Your task to perform on an android device: visit the assistant section in the google photos Image 0: 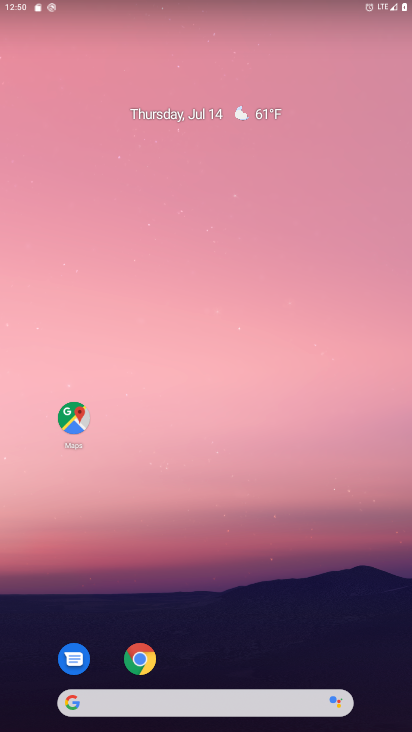
Step 0: press home button
Your task to perform on an android device: visit the assistant section in the google photos Image 1: 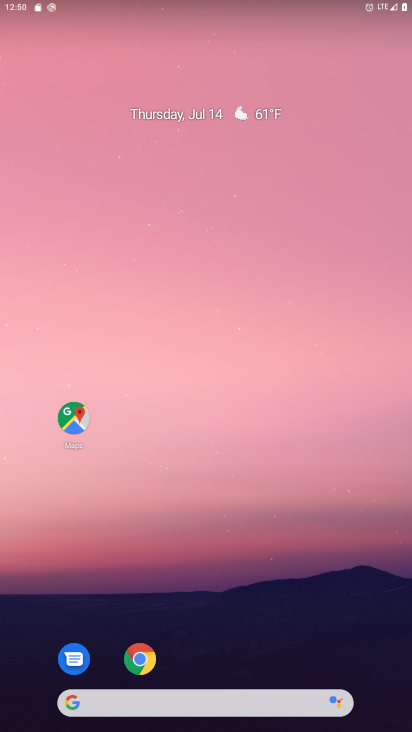
Step 1: drag from (207, 442) to (237, 119)
Your task to perform on an android device: visit the assistant section in the google photos Image 2: 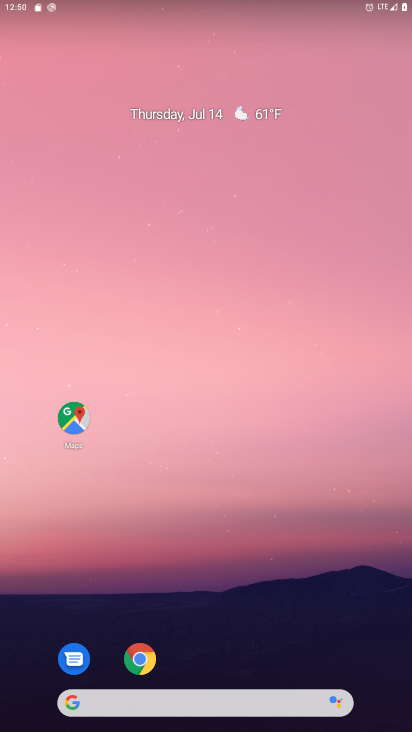
Step 2: drag from (206, 676) to (212, 99)
Your task to perform on an android device: visit the assistant section in the google photos Image 3: 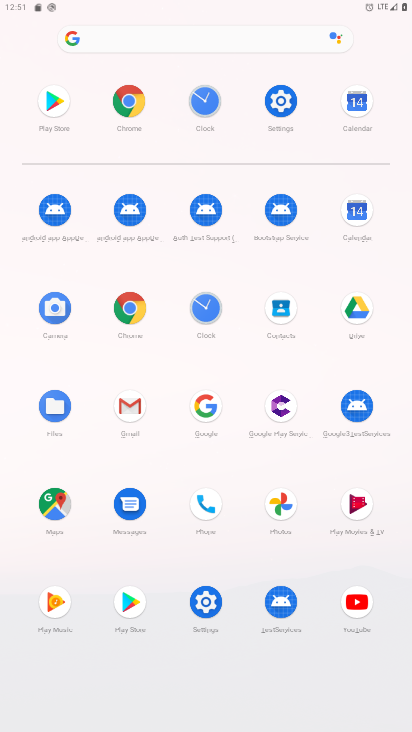
Step 3: click (281, 500)
Your task to perform on an android device: visit the assistant section in the google photos Image 4: 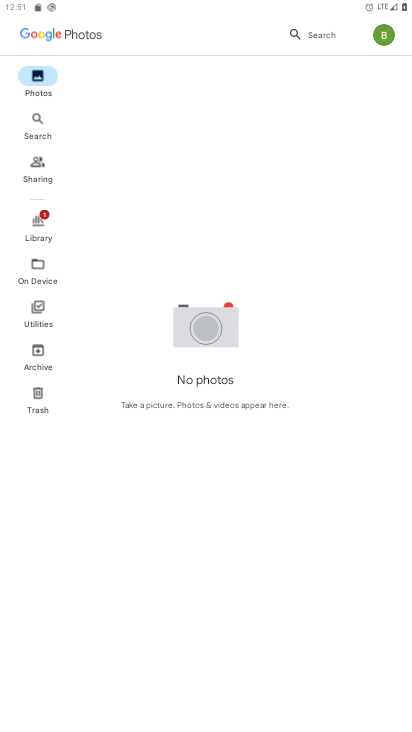
Step 4: click (302, 35)
Your task to perform on an android device: visit the assistant section in the google photos Image 5: 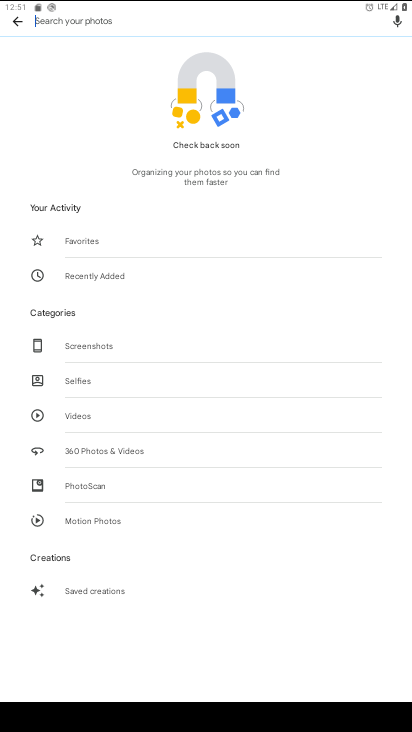
Step 5: task complete